Your task to perform on an android device: Go to settings Image 0: 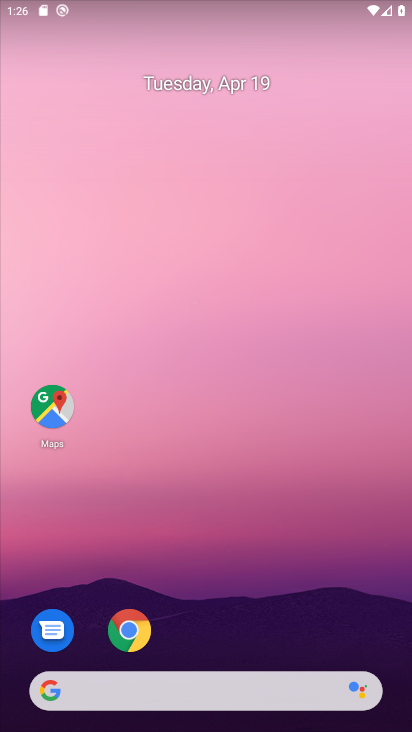
Step 0: drag from (264, 618) to (290, 0)
Your task to perform on an android device: Go to settings Image 1: 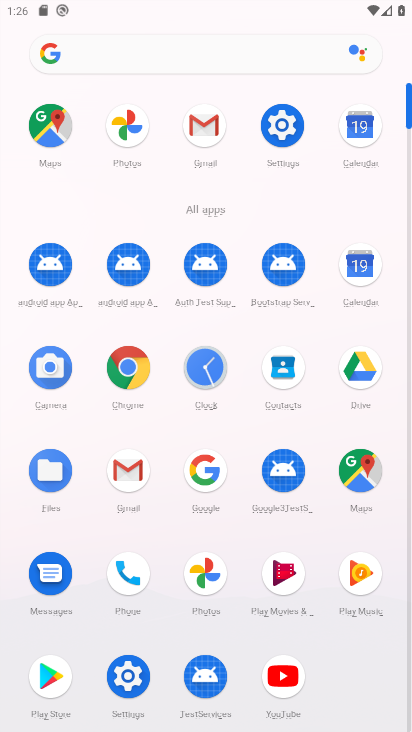
Step 1: click (282, 123)
Your task to perform on an android device: Go to settings Image 2: 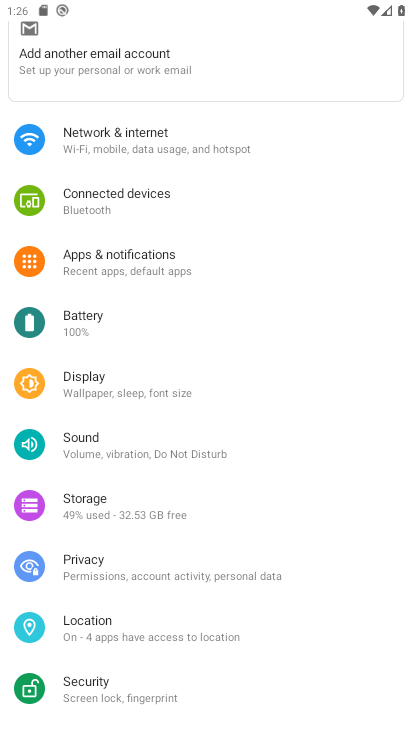
Step 2: task complete